Your task to perform on an android device: change the clock style Image 0: 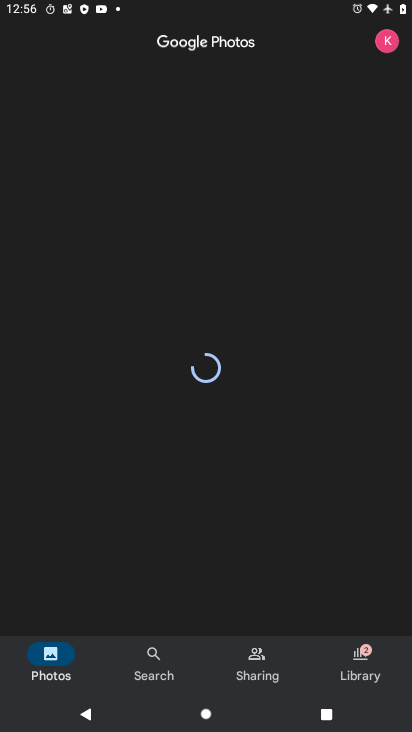
Step 0: drag from (188, 627) to (206, 417)
Your task to perform on an android device: change the clock style Image 1: 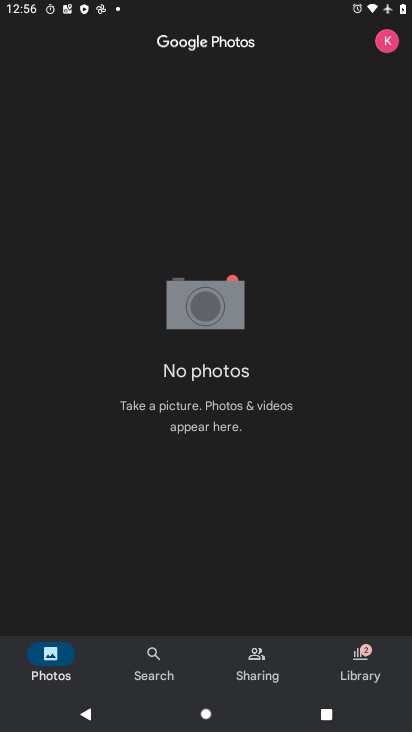
Step 1: press home button
Your task to perform on an android device: change the clock style Image 2: 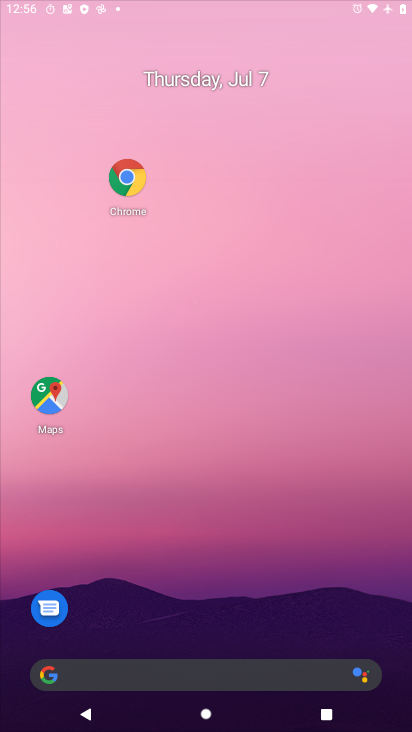
Step 2: drag from (170, 630) to (162, 170)
Your task to perform on an android device: change the clock style Image 3: 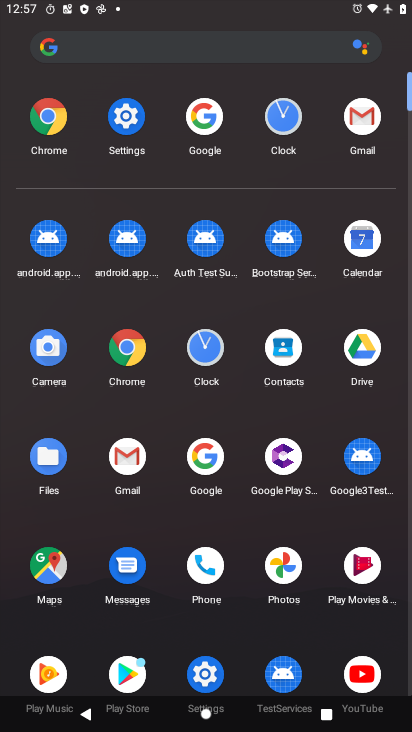
Step 3: click (204, 364)
Your task to perform on an android device: change the clock style Image 4: 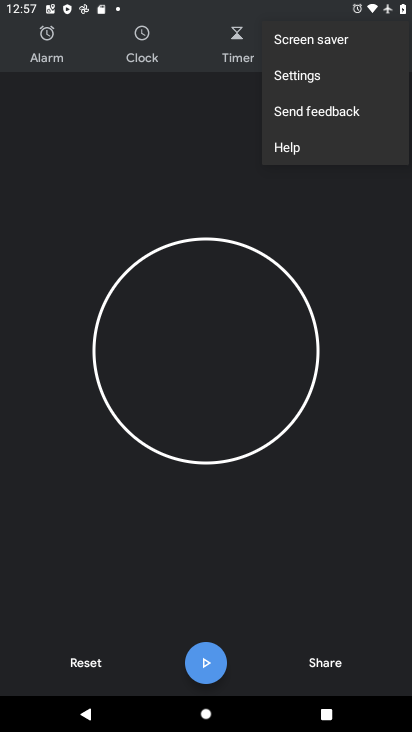
Step 4: click (294, 77)
Your task to perform on an android device: change the clock style Image 5: 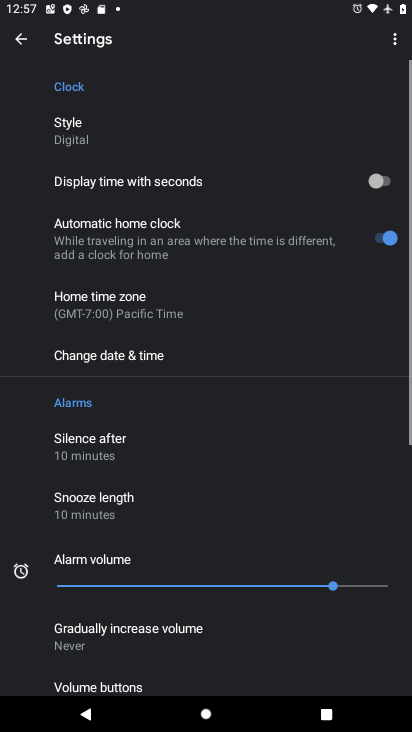
Step 5: click (91, 138)
Your task to perform on an android device: change the clock style Image 6: 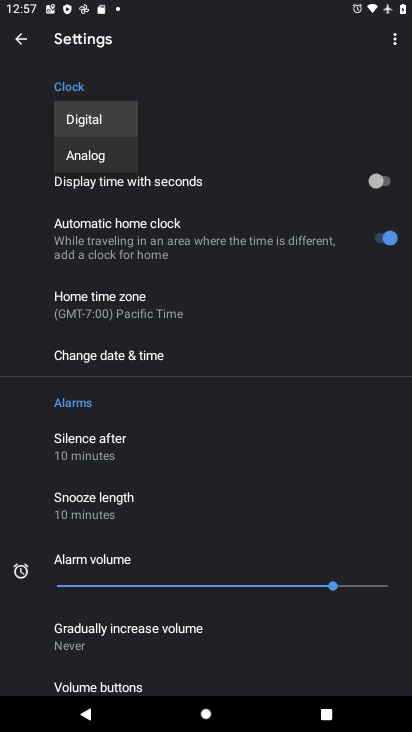
Step 6: click (89, 154)
Your task to perform on an android device: change the clock style Image 7: 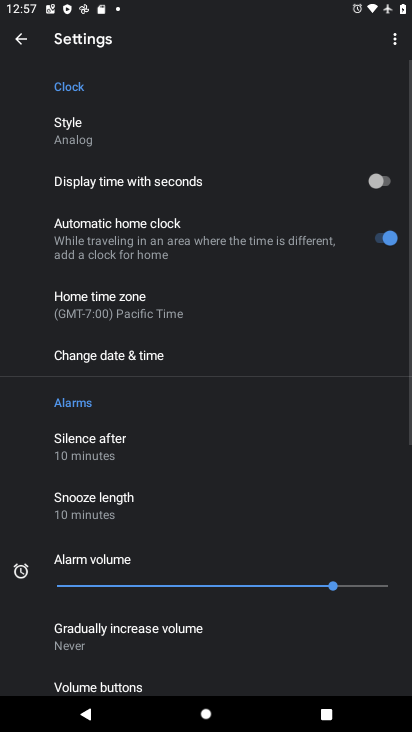
Step 7: task complete